Your task to perform on an android device: Open accessibility settings Image 0: 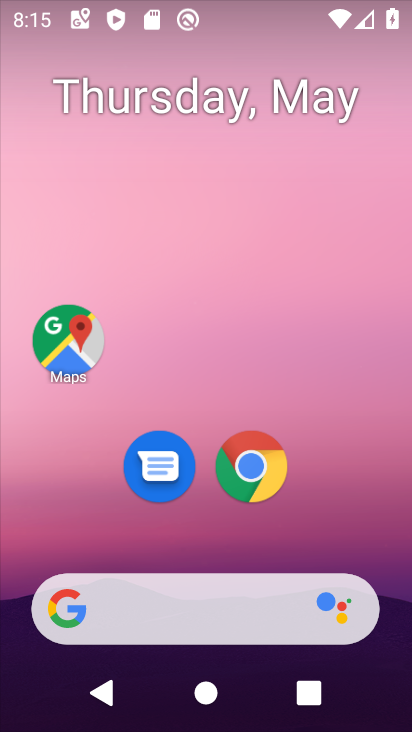
Step 0: drag from (325, 552) to (347, 3)
Your task to perform on an android device: Open accessibility settings Image 1: 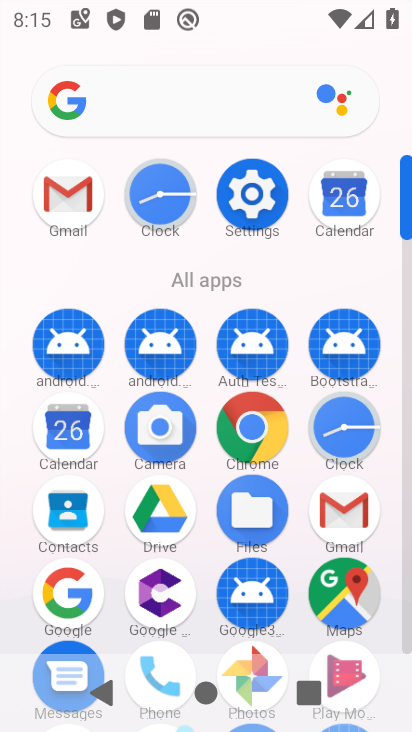
Step 1: click (251, 194)
Your task to perform on an android device: Open accessibility settings Image 2: 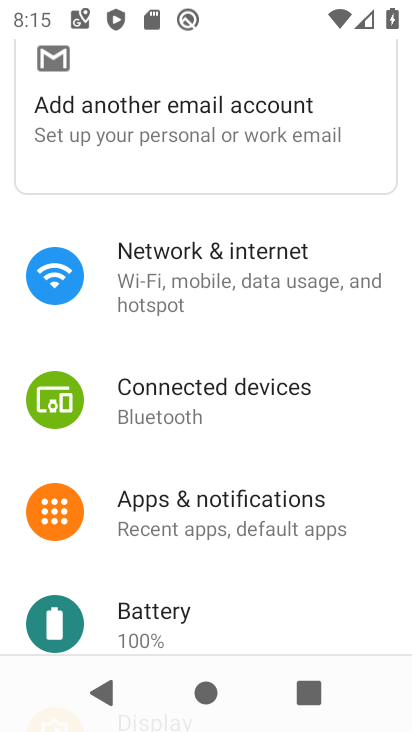
Step 2: drag from (282, 572) to (247, 137)
Your task to perform on an android device: Open accessibility settings Image 3: 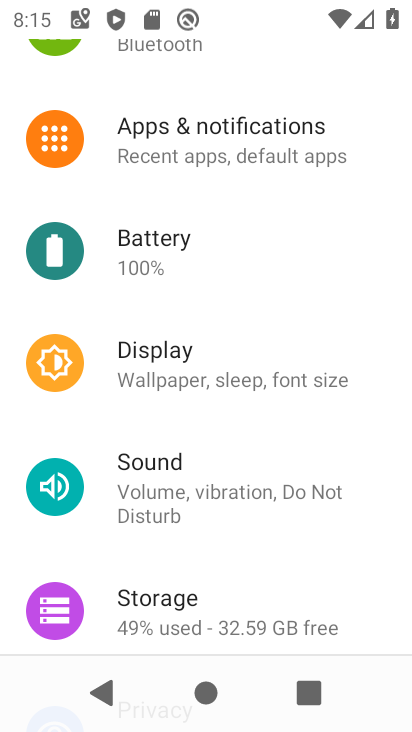
Step 3: drag from (200, 519) to (201, 99)
Your task to perform on an android device: Open accessibility settings Image 4: 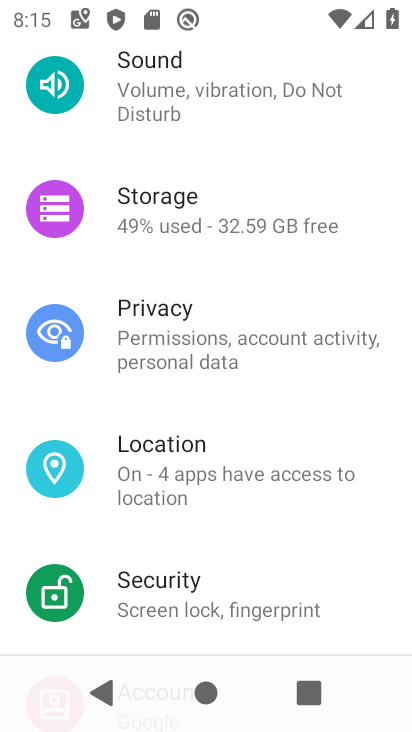
Step 4: drag from (201, 446) to (195, 87)
Your task to perform on an android device: Open accessibility settings Image 5: 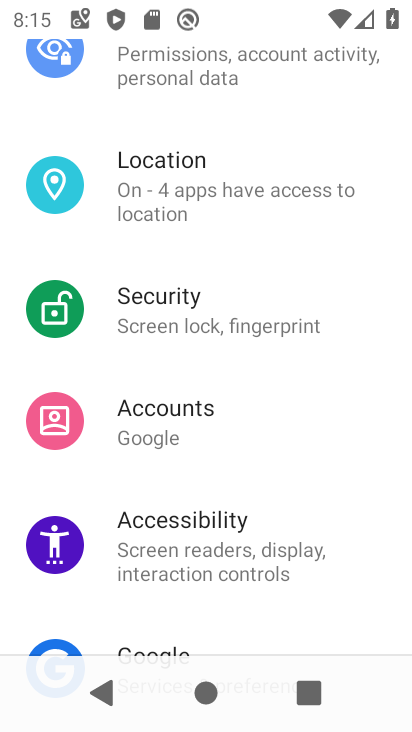
Step 5: click (170, 542)
Your task to perform on an android device: Open accessibility settings Image 6: 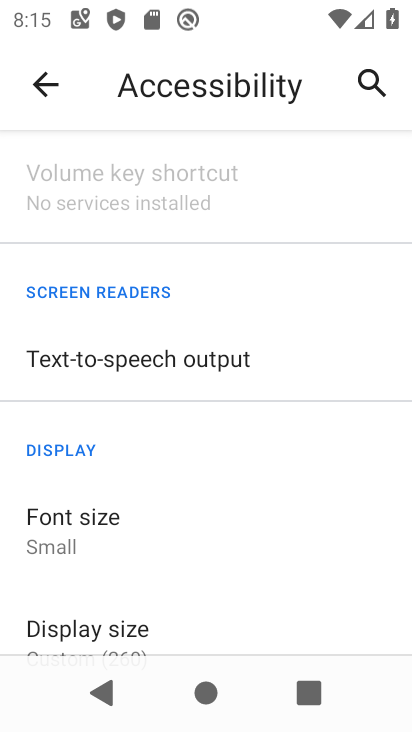
Step 6: task complete